Your task to perform on an android device: create a new album in the google photos Image 0: 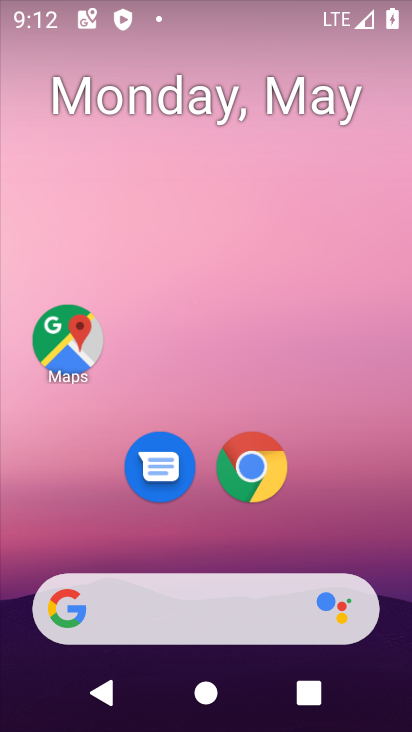
Step 0: drag from (317, 504) to (215, 43)
Your task to perform on an android device: create a new album in the google photos Image 1: 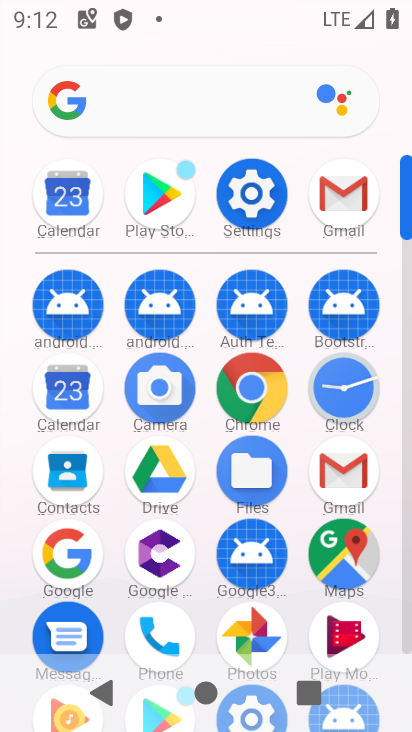
Step 1: click (255, 629)
Your task to perform on an android device: create a new album in the google photos Image 2: 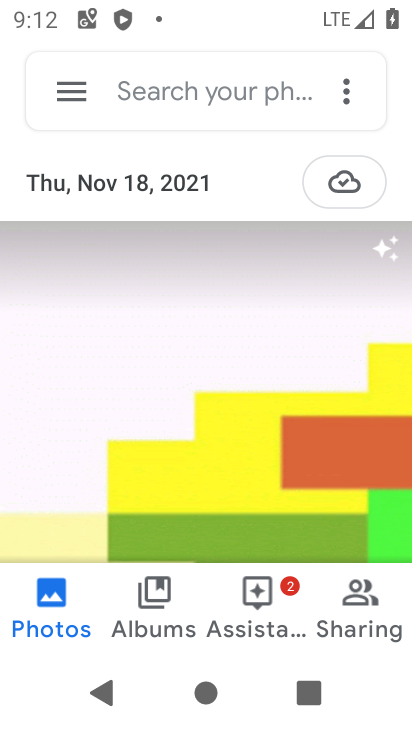
Step 2: click (133, 583)
Your task to perform on an android device: create a new album in the google photos Image 3: 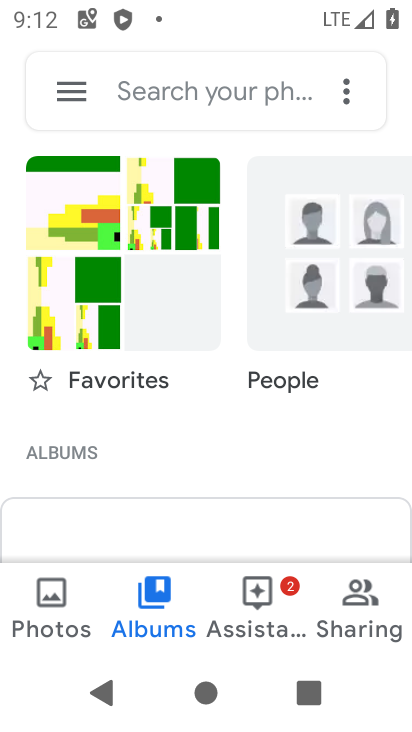
Step 3: drag from (180, 447) to (180, 173)
Your task to perform on an android device: create a new album in the google photos Image 4: 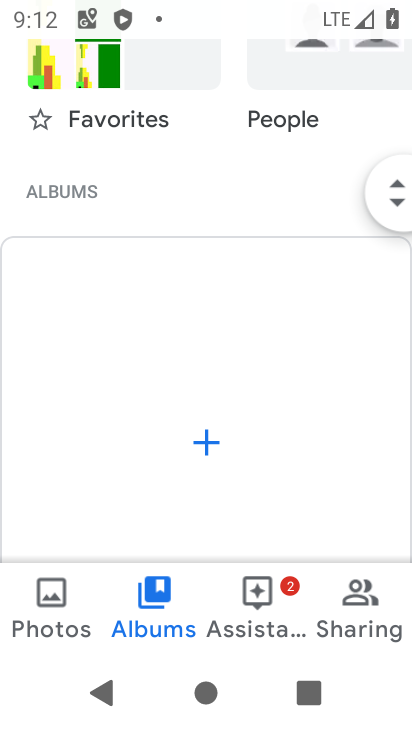
Step 4: click (220, 444)
Your task to perform on an android device: create a new album in the google photos Image 5: 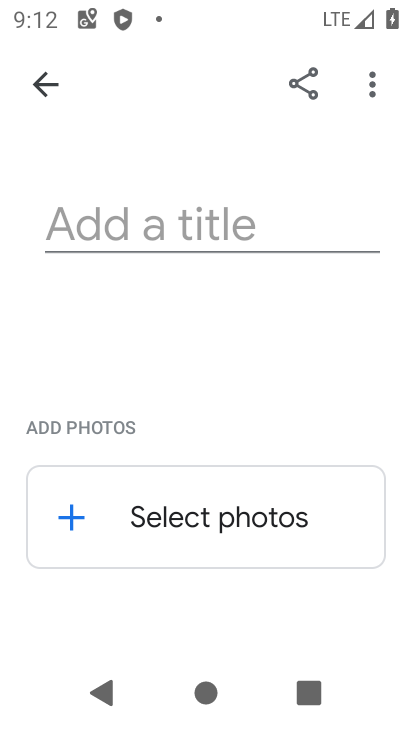
Step 5: click (206, 219)
Your task to perform on an android device: create a new album in the google photos Image 6: 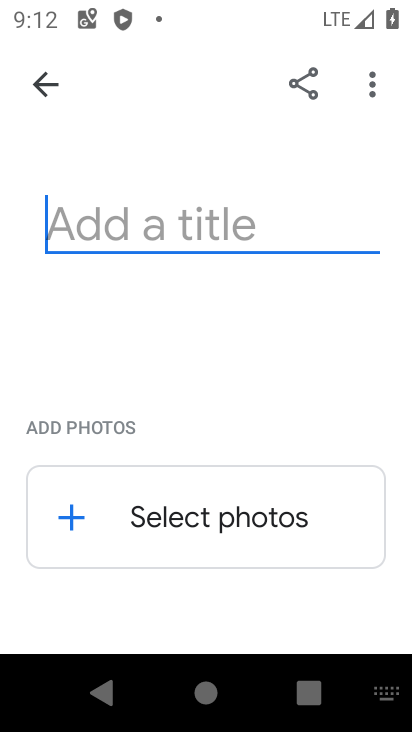
Step 6: type "fghdgh"
Your task to perform on an android device: create a new album in the google photos Image 7: 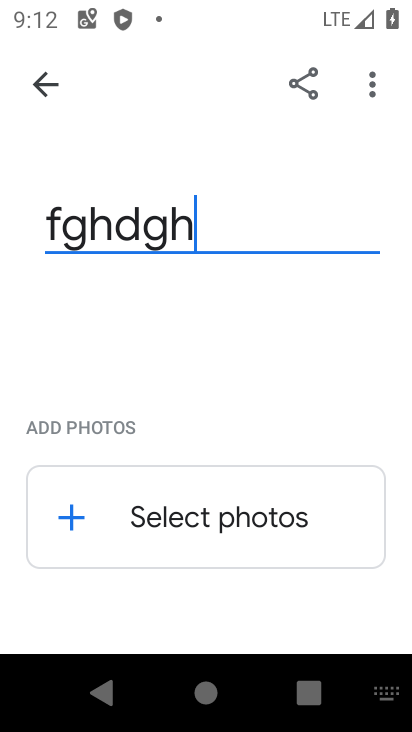
Step 7: type ""
Your task to perform on an android device: create a new album in the google photos Image 8: 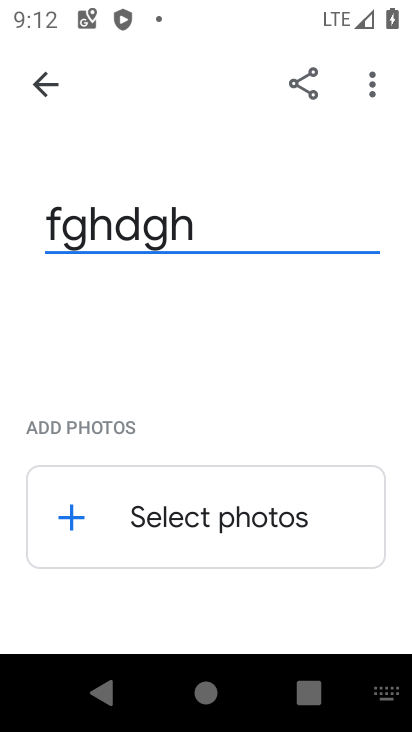
Step 8: click (202, 514)
Your task to perform on an android device: create a new album in the google photos Image 9: 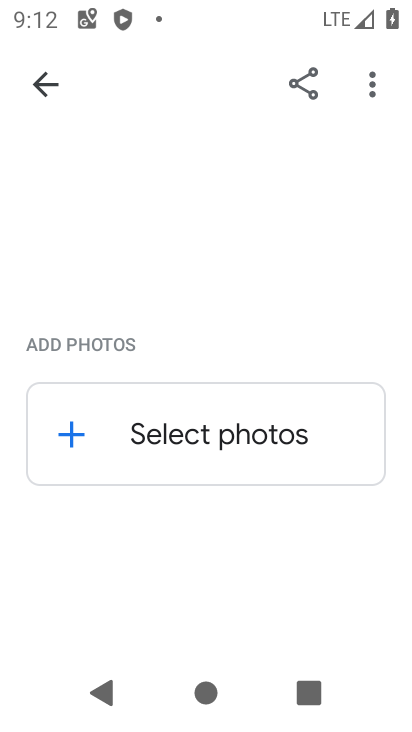
Step 9: click (88, 431)
Your task to perform on an android device: create a new album in the google photos Image 10: 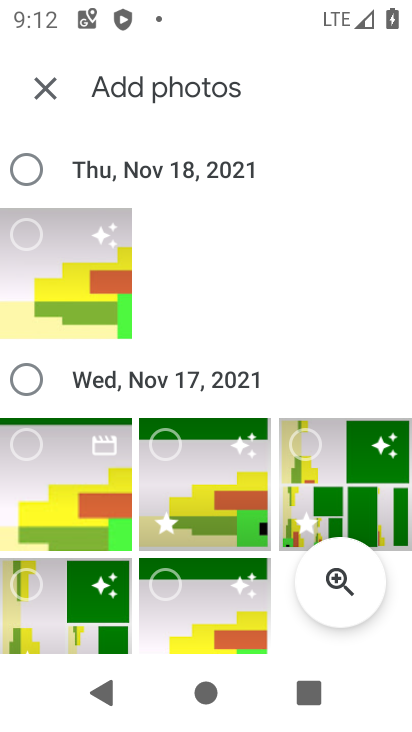
Step 10: click (56, 308)
Your task to perform on an android device: create a new album in the google photos Image 11: 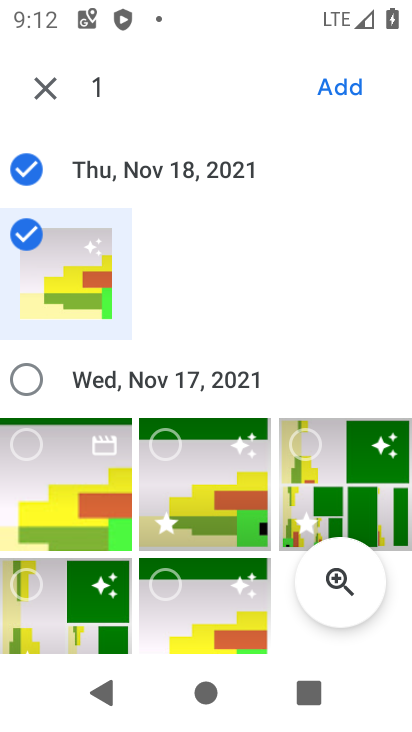
Step 11: drag from (89, 479) to (155, 597)
Your task to perform on an android device: create a new album in the google photos Image 12: 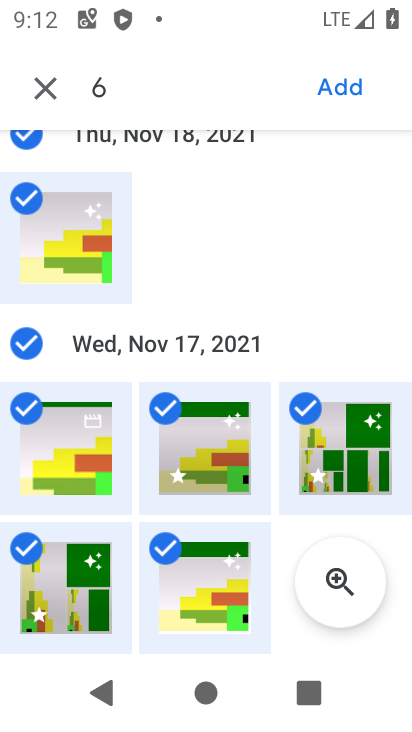
Step 12: click (339, 86)
Your task to perform on an android device: create a new album in the google photos Image 13: 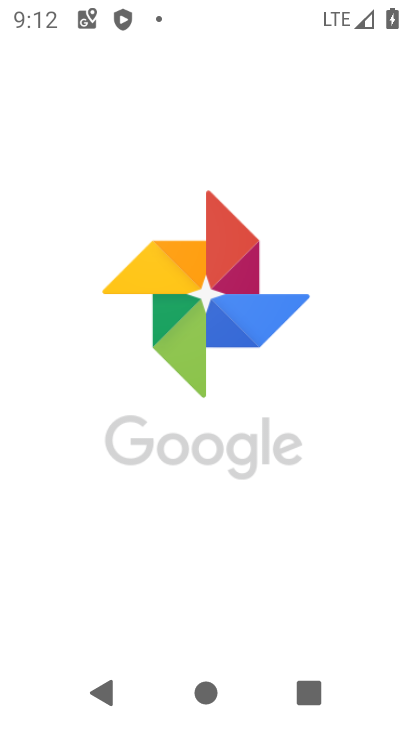
Step 13: task complete